Your task to perform on an android device: Search for vegetarian restaurants on Maps Image 0: 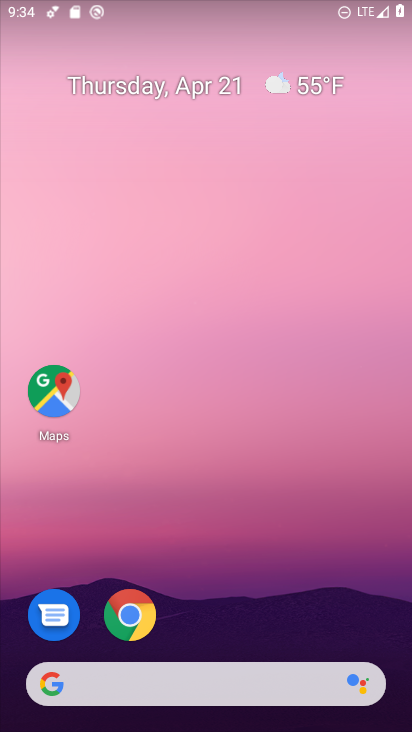
Step 0: drag from (285, 601) to (308, 19)
Your task to perform on an android device: Search for vegetarian restaurants on Maps Image 1: 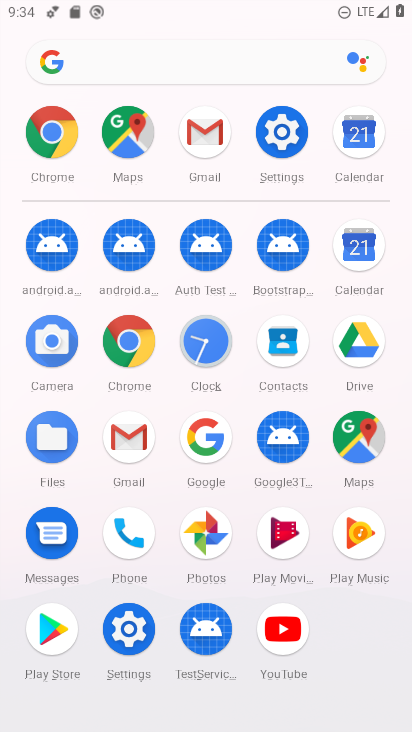
Step 1: click (130, 140)
Your task to perform on an android device: Search for vegetarian restaurants on Maps Image 2: 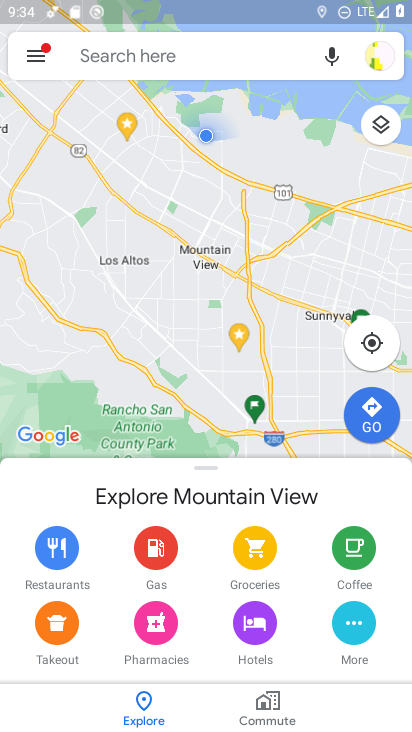
Step 2: click (200, 47)
Your task to perform on an android device: Search for vegetarian restaurants on Maps Image 3: 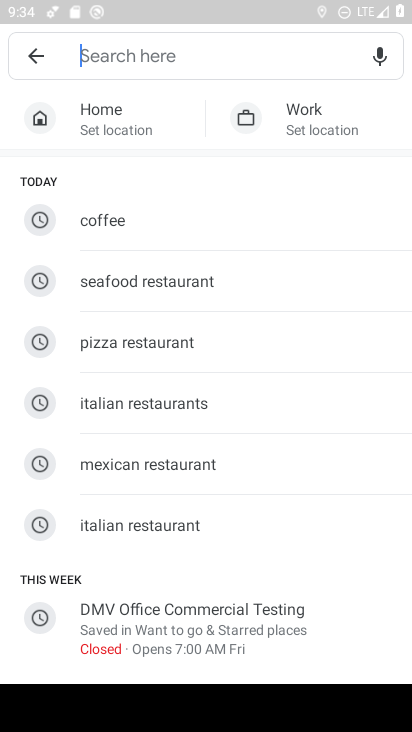
Step 3: type "vegetarian returents"
Your task to perform on an android device: Search for vegetarian restaurants on Maps Image 4: 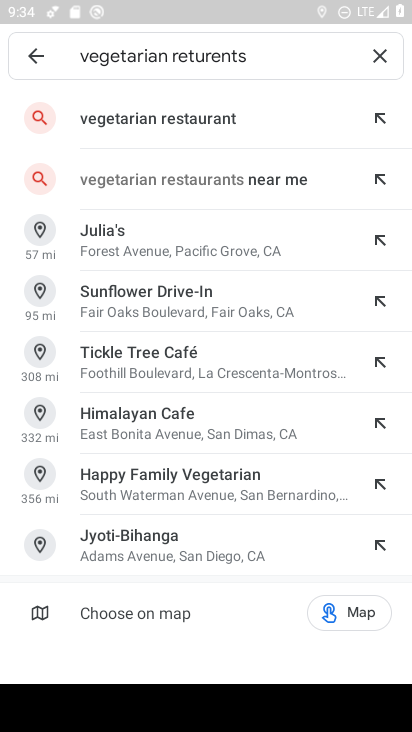
Step 4: click (193, 99)
Your task to perform on an android device: Search for vegetarian restaurants on Maps Image 5: 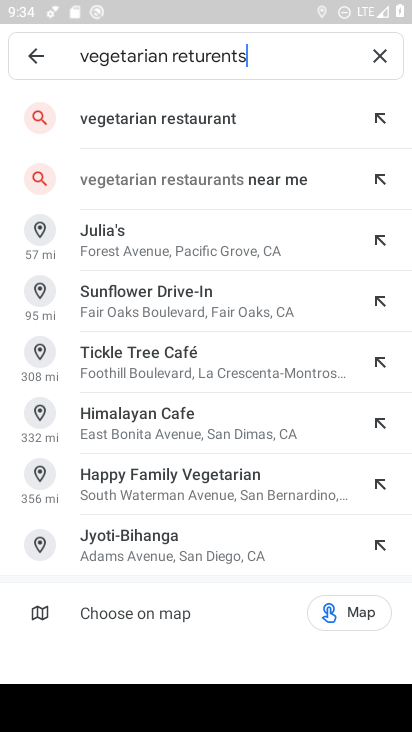
Step 5: click (186, 111)
Your task to perform on an android device: Search for vegetarian restaurants on Maps Image 6: 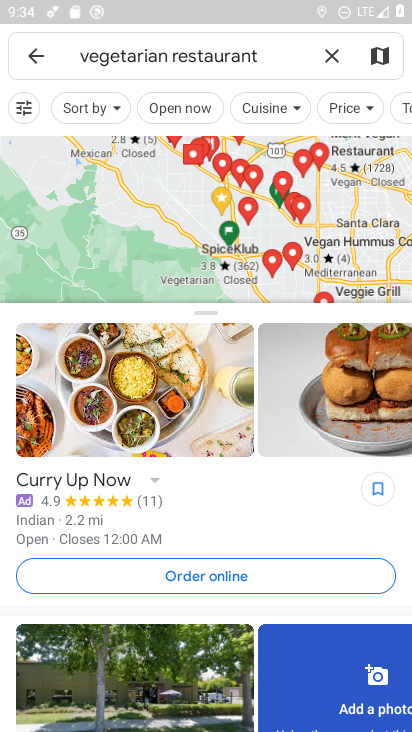
Step 6: task complete